Your task to perform on an android device: Open the calendar and show me this week's events? Image 0: 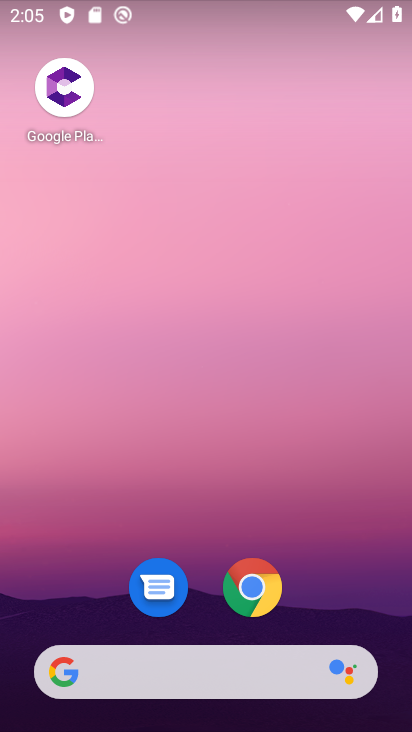
Step 0: drag from (201, 540) to (243, 4)
Your task to perform on an android device: Open the calendar and show me this week's events? Image 1: 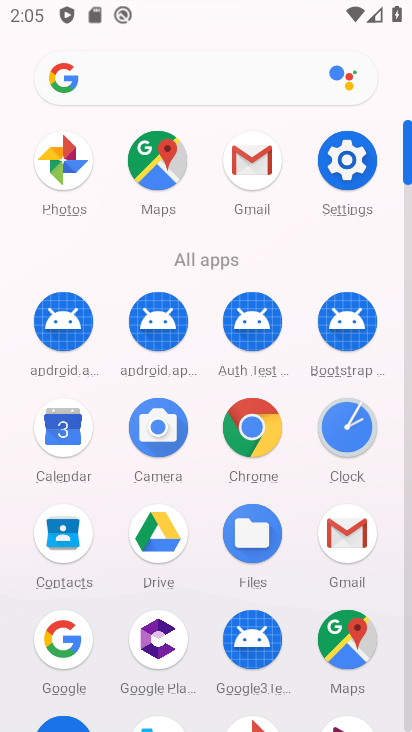
Step 1: click (60, 432)
Your task to perform on an android device: Open the calendar and show me this week's events? Image 2: 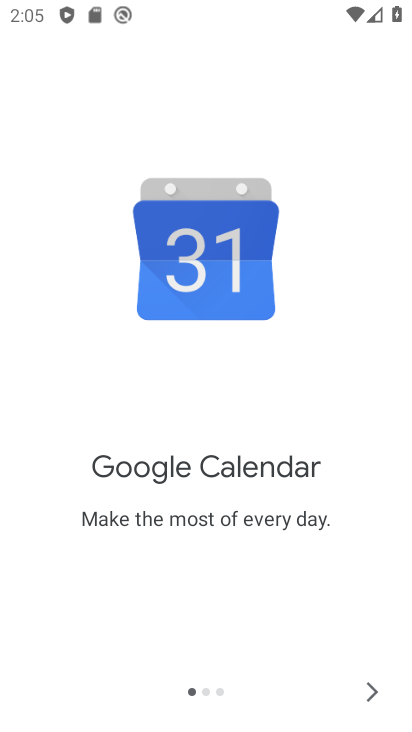
Step 2: click (363, 691)
Your task to perform on an android device: Open the calendar and show me this week's events? Image 3: 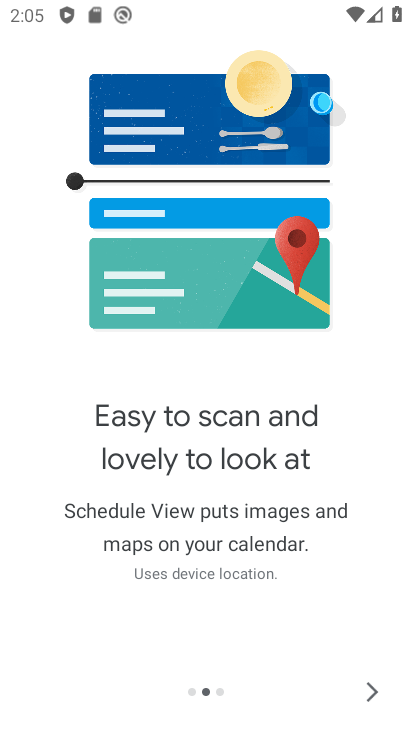
Step 3: click (363, 691)
Your task to perform on an android device: Open the calendar and show me this week's events? Image 4: 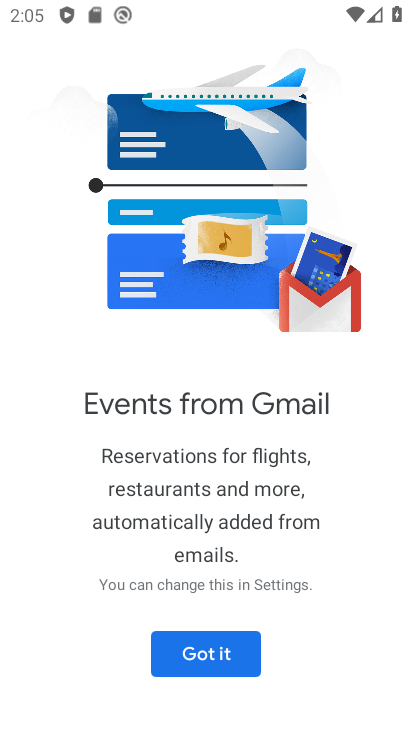
Step 4: click (202, 637)
Your task to perform on an android device: Open the calendar and show me this week's events? Image 5: 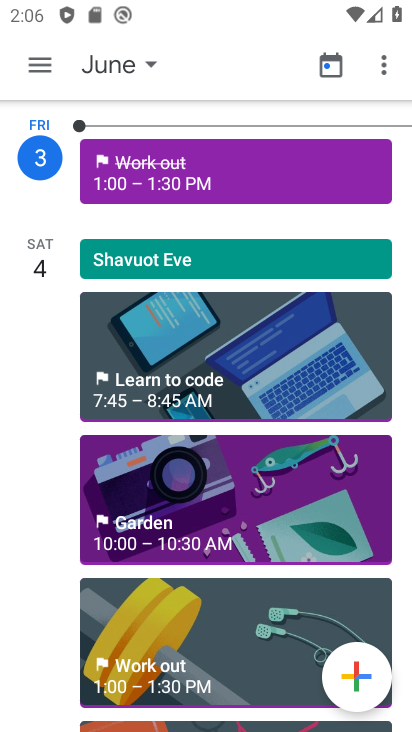
Step 5: click (106, 260)
Your task to perform on an android device: Open the calendar and show me this week's events? Image 6: 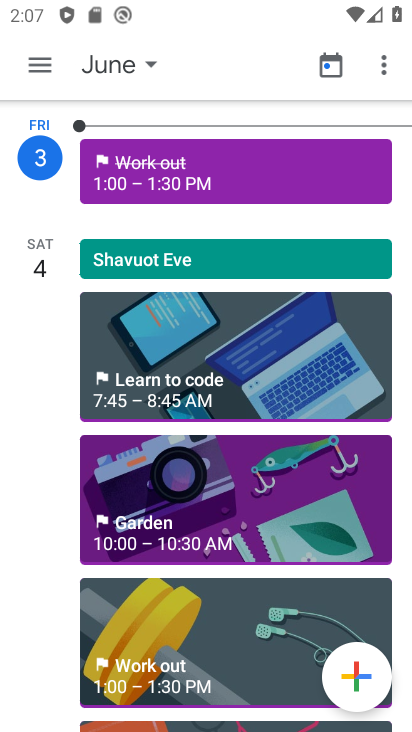
Step 6: task complete